Your task to perform on an android device: all mails in gmail Image 0: 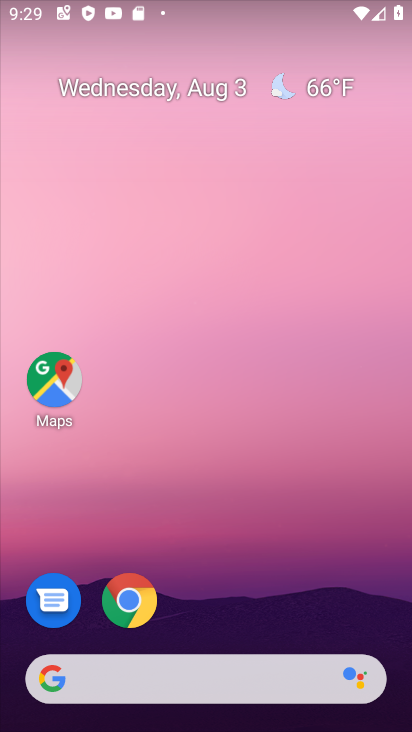
Step 0: drag from (196, 486) to (231, 0)
Your task to perform on an android device: all mails in gmail Image 1: 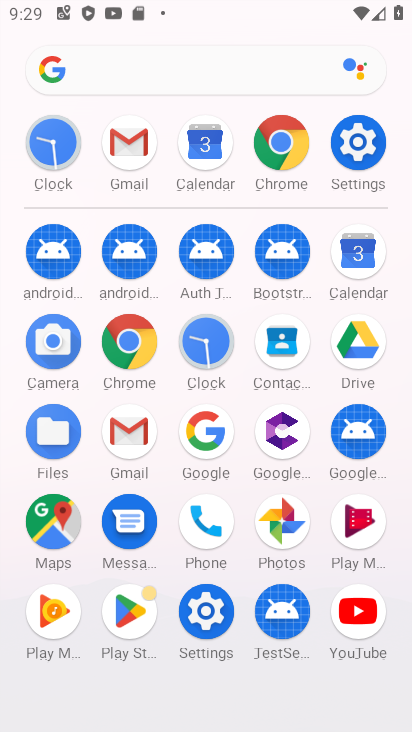
Step 1: click (132, 430)
Your task to perform on an android device: all mails in gmail Image 2: 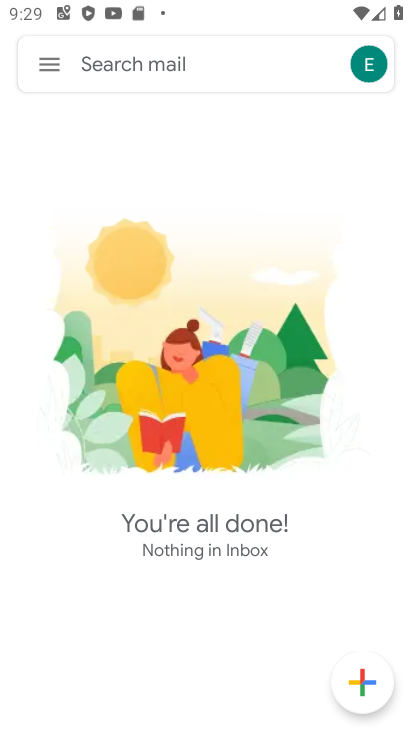
Step 2: click (42, 65)
Your task to perform on an android device: all mails in gmail Image 3: 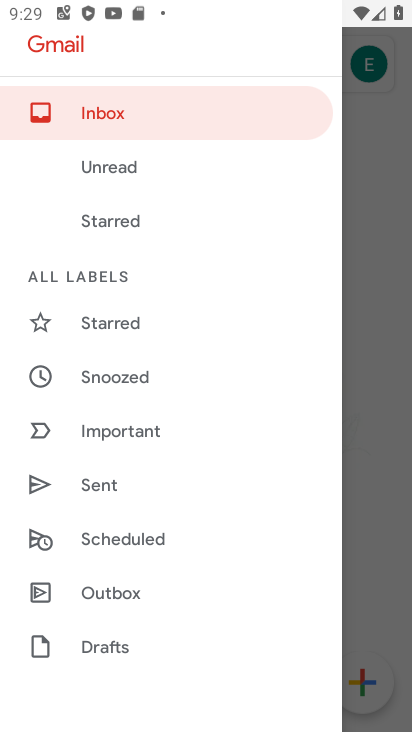
Step 3: drag from (212, 327) to (204, 169)
Your task to perform on an android device: all mails in gmail Image 4: 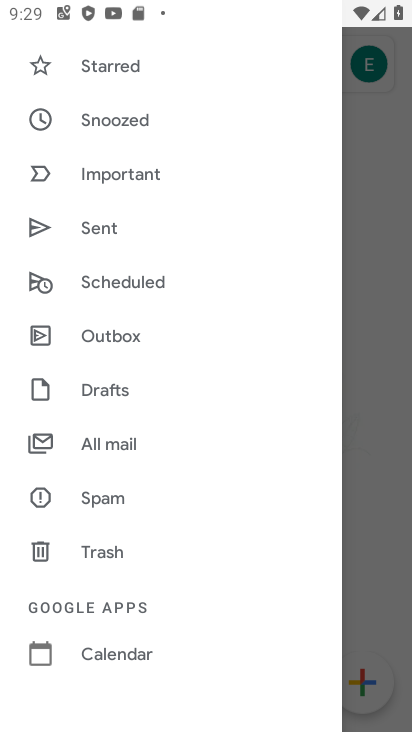
Step 4: click (128, 454)
Your task to perform on an android device: all mails in gmail Image 5: 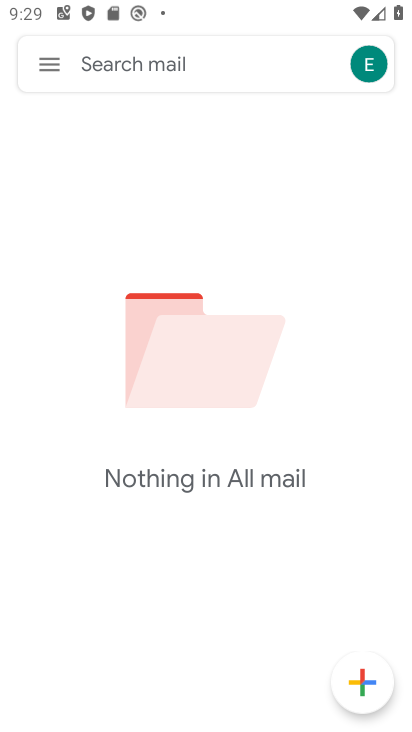
Step 5: task complete